Your task to perform on an android device: uninstall "Messenger Lite" Image 0: 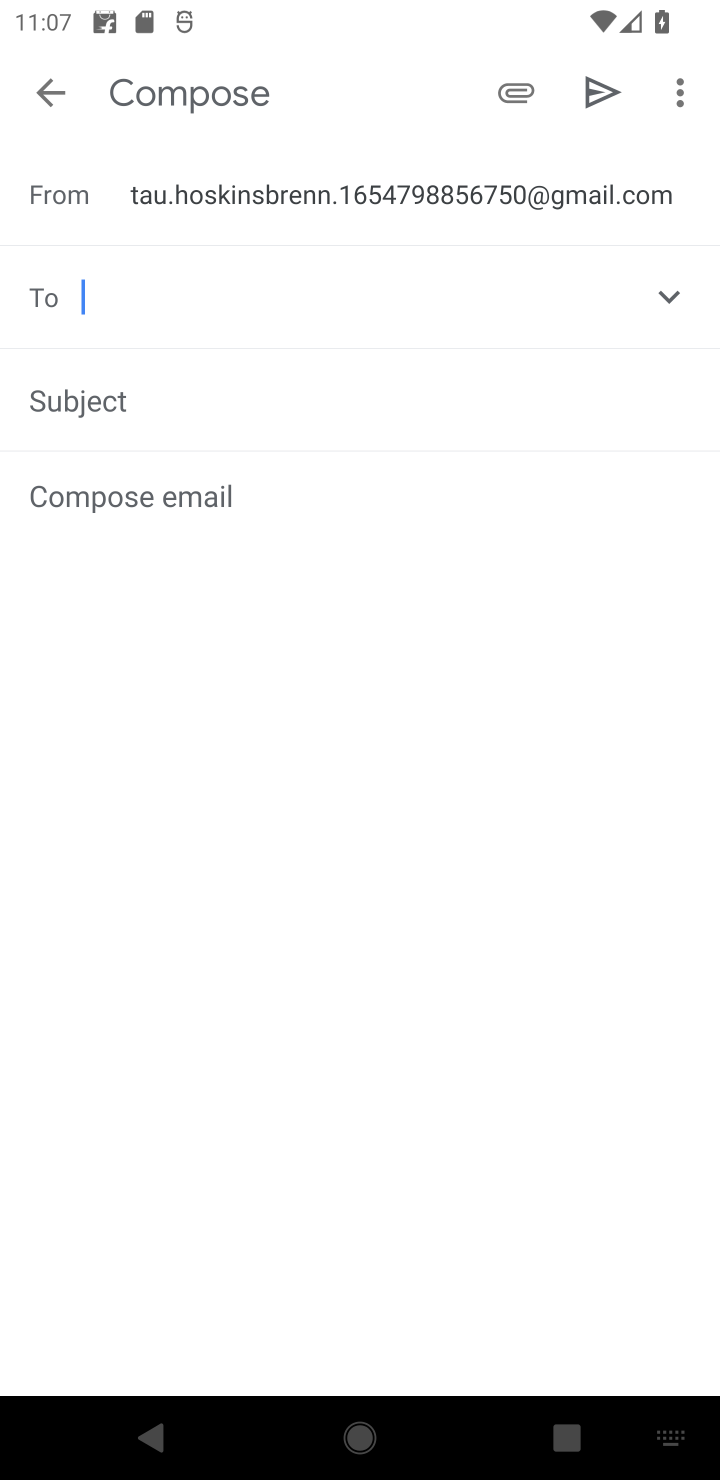
Step 0: press home button
Your task to perform on an android device: uninstall "Messenger Lite" Image 1: 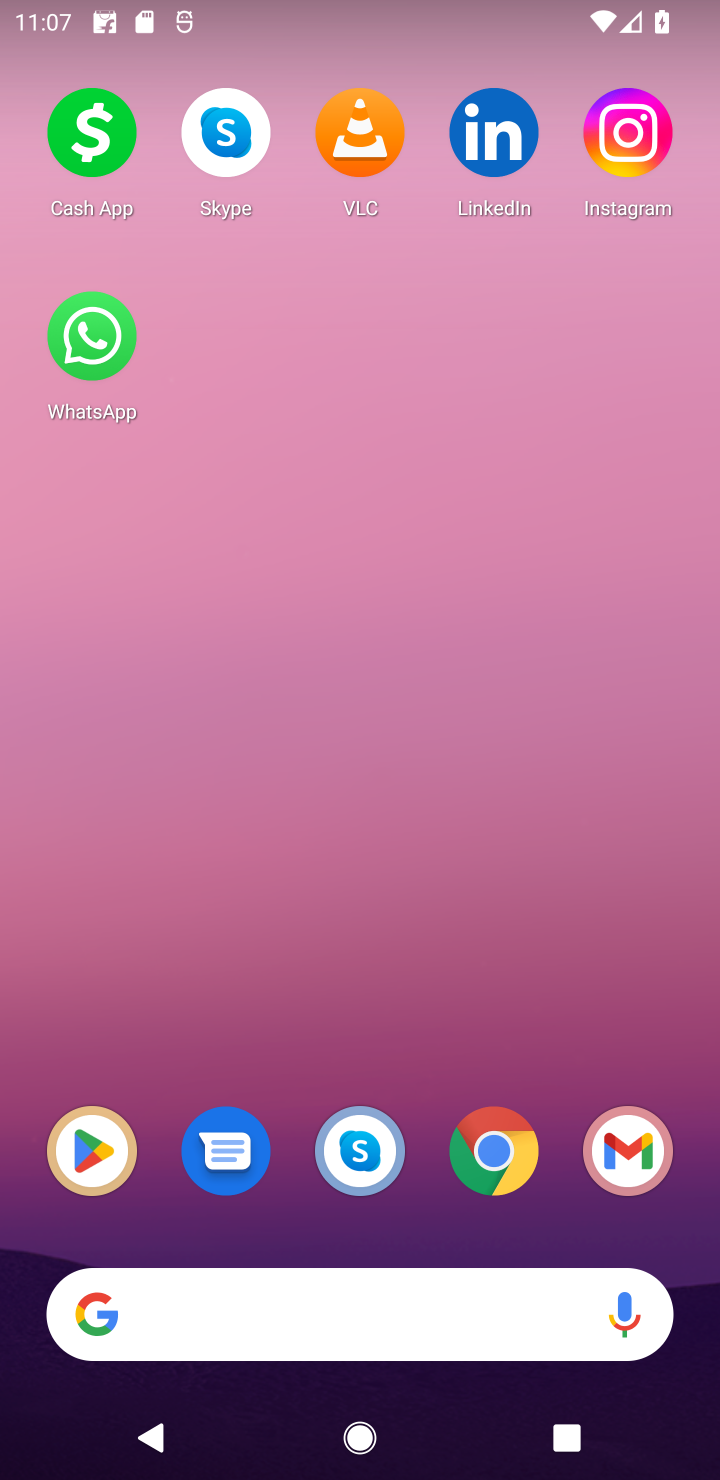
Step 1: click (69, 1143)
Your task to perform on an android device: uninstall "Messenger Lite" Image 2: 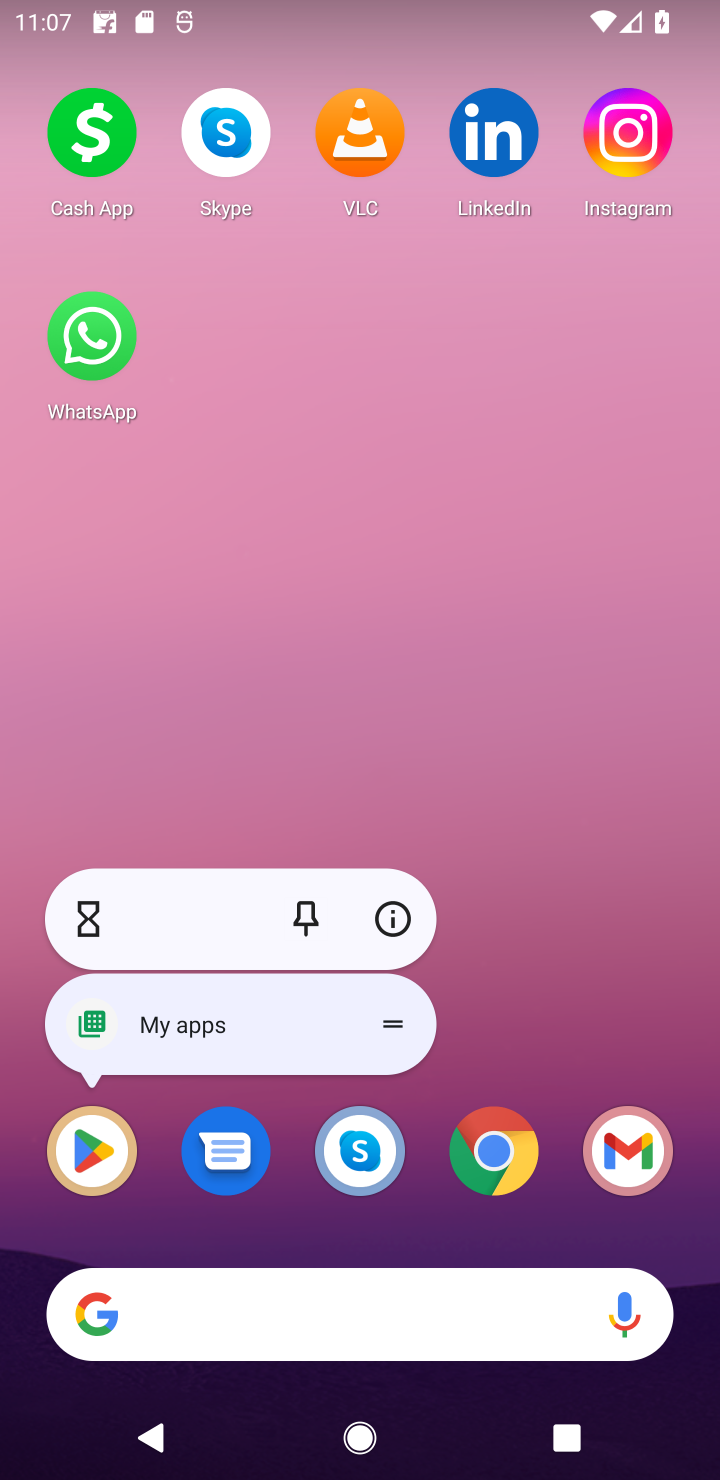
Step 2: click (69, 1143)
Your task to perform on an android device: uninstall "Messenger Lite" Image 3: 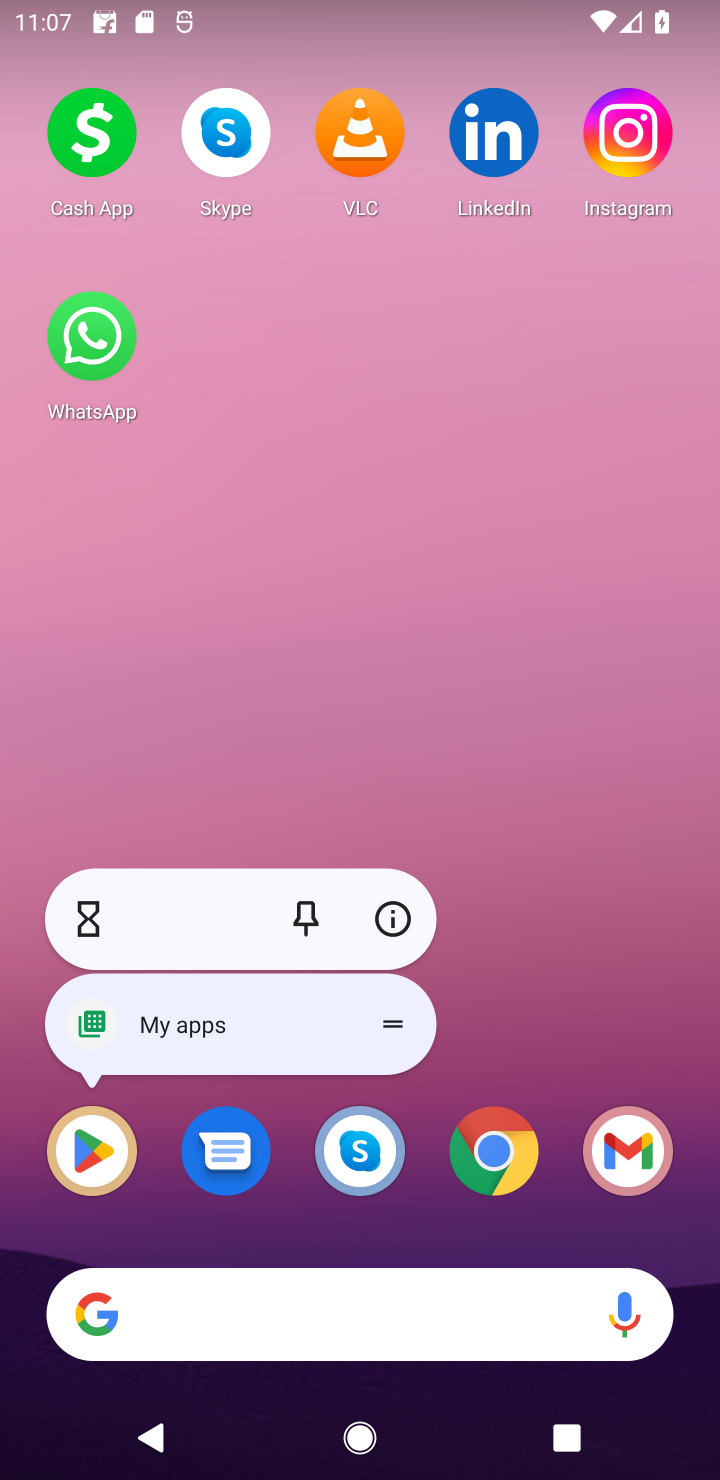
Step 3: click (79, 1172)
Your task to perform on an android device: uninstall "Messenger Lite" Image 4: 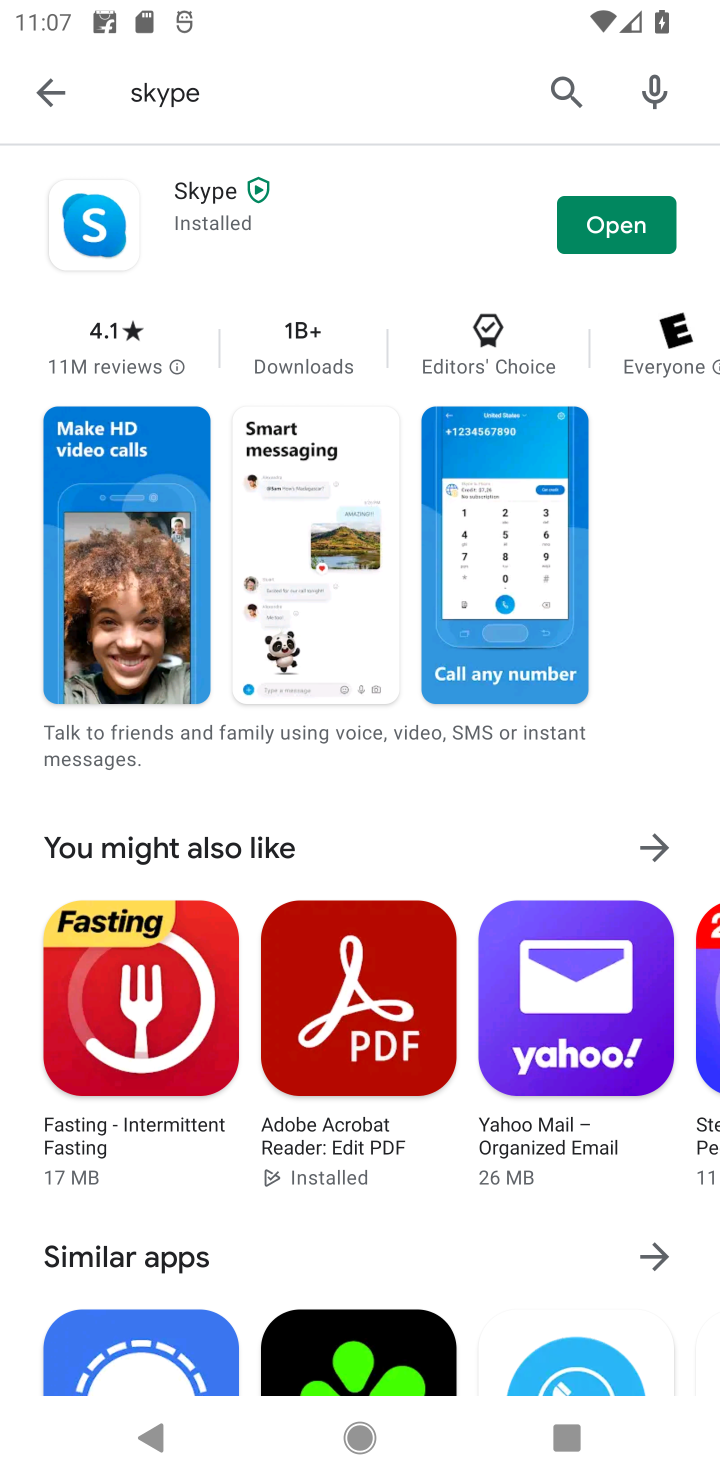
Step 4: click (562, 95)
Your task to perform on an android device: uninstall "Messenger Lite" Image 5: 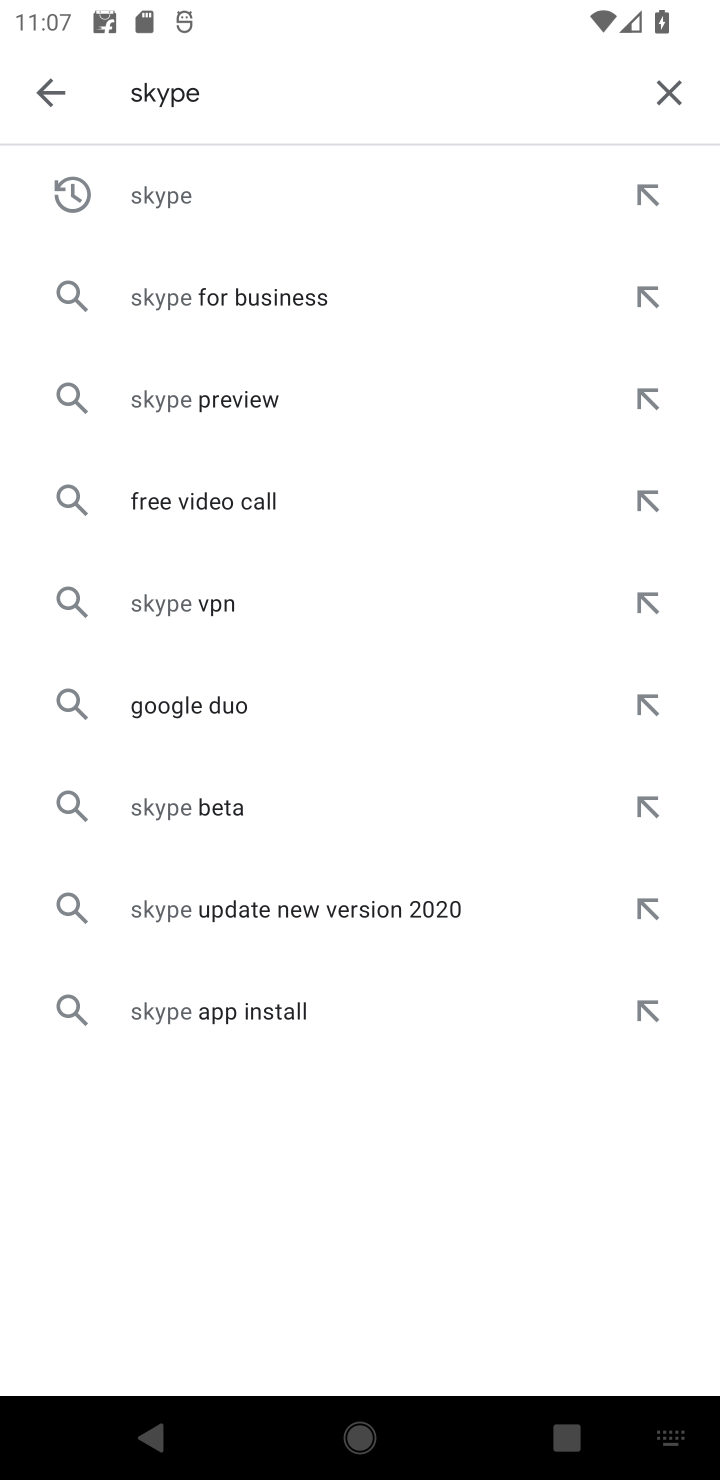
Step 5: click (664, 84)
Your task to perform on an android device: uninstall "Messenger Lite" Image 6: 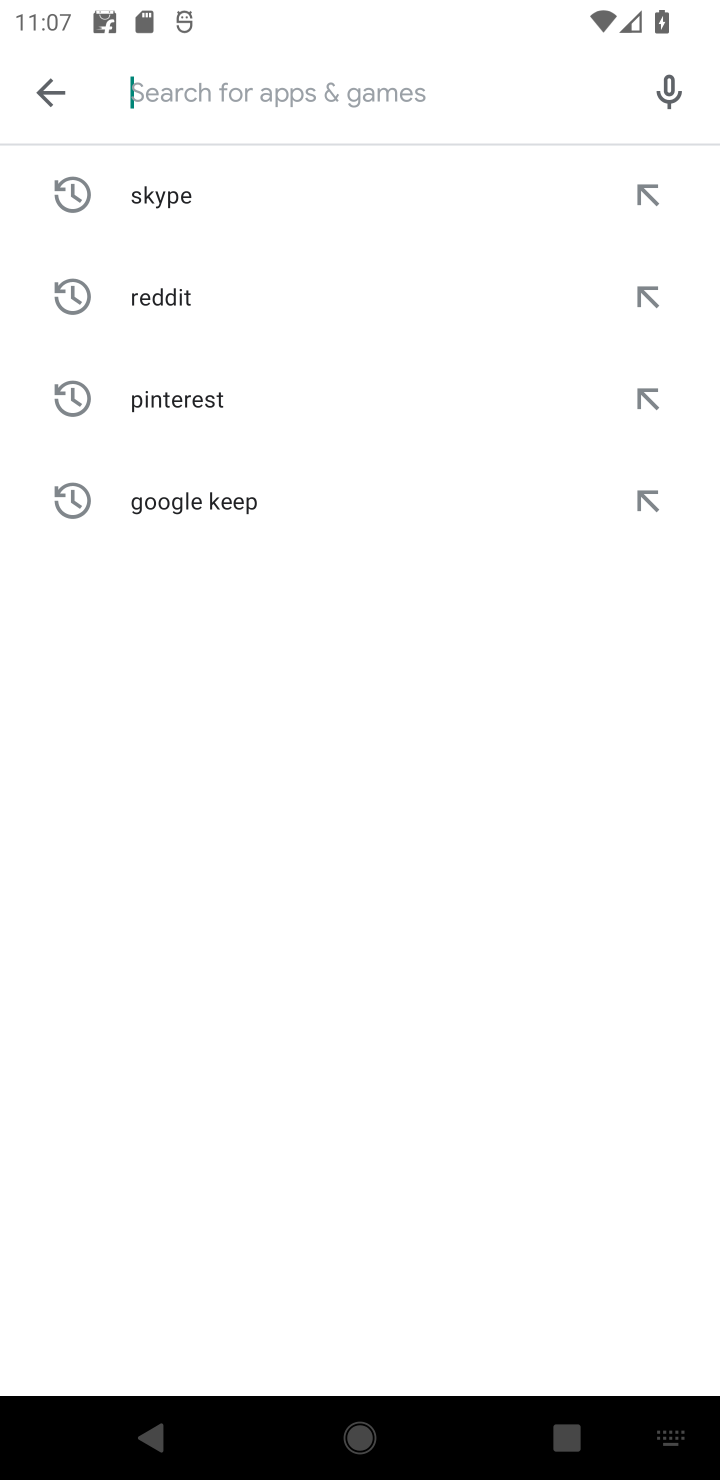
Step 6: type "Messenger Lite"
Your task to perform on an android device: uninstall "Messenger Lite" Image 7: 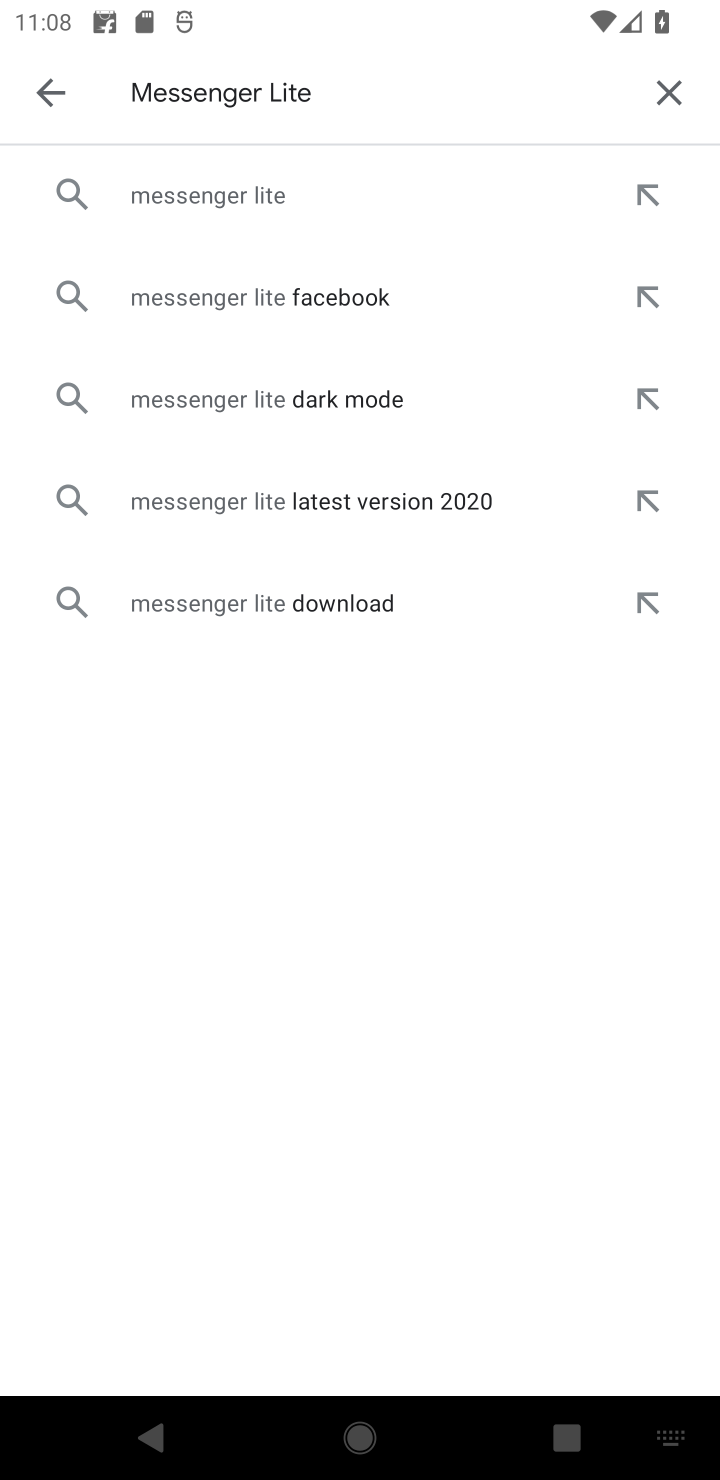
Step 7: click (277, 207)
Your task to perform on an android device: uninstall "Messenger Lite" Image 8: 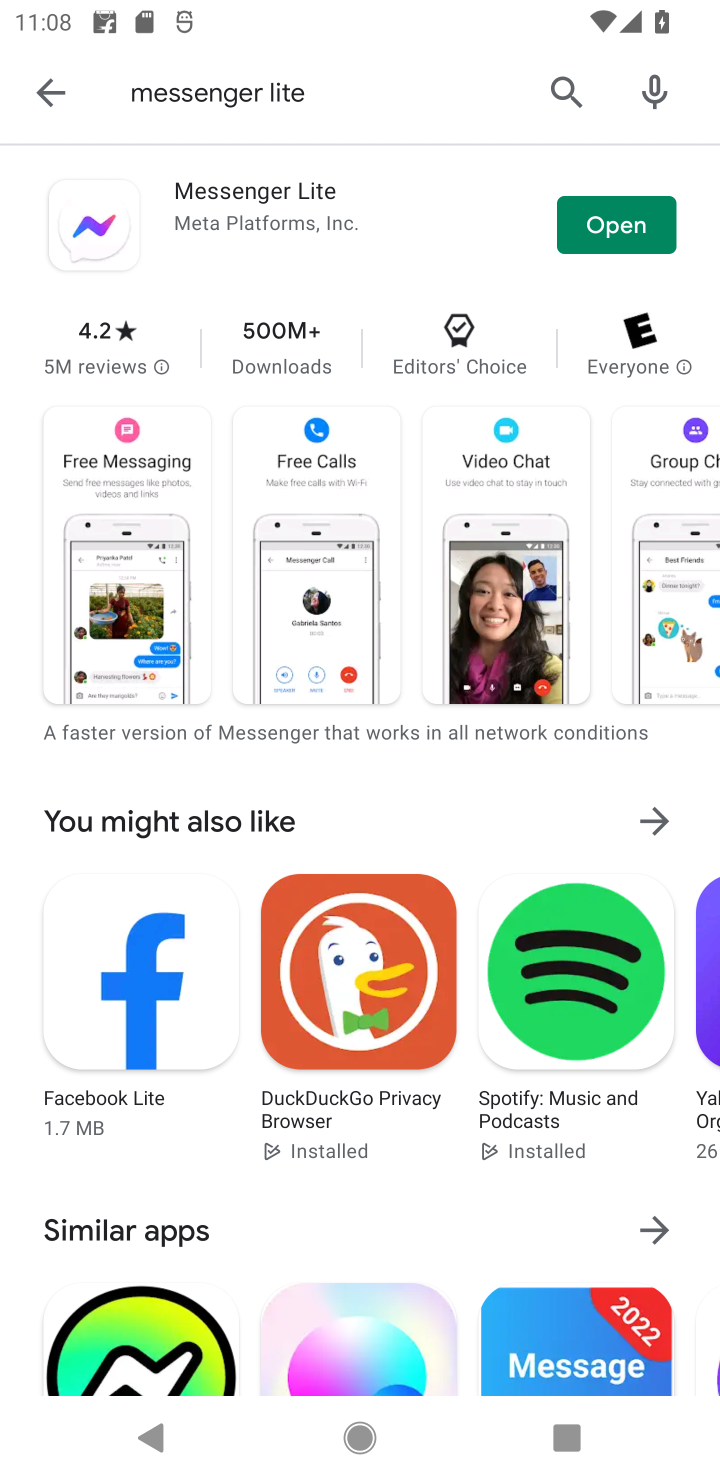
Step 8: click (227, 191)
Your task to perform on an android device: uninstall "Messenger Lite" Image 9: 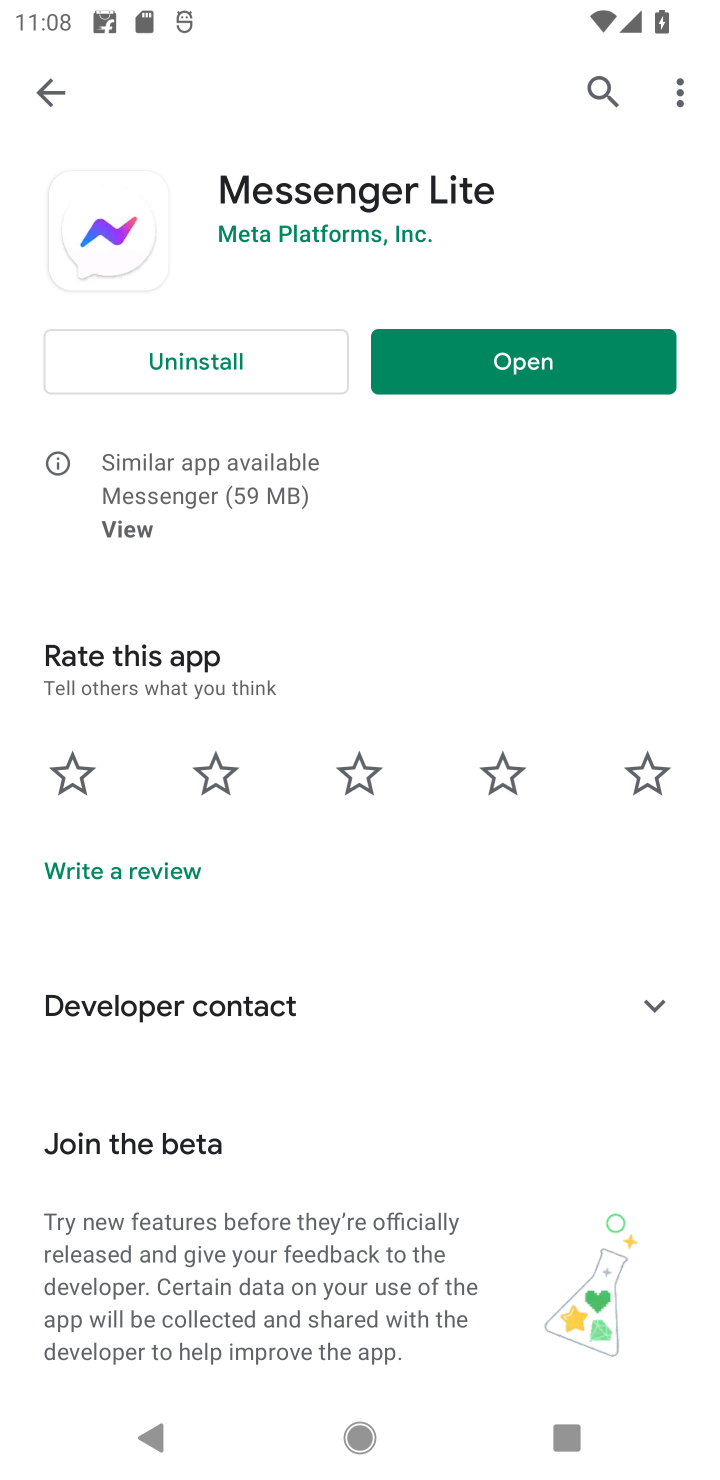
Step 9: click (219, 351)
Your task to perform on an android device: uninstall "Messenger Lite" Image 10: 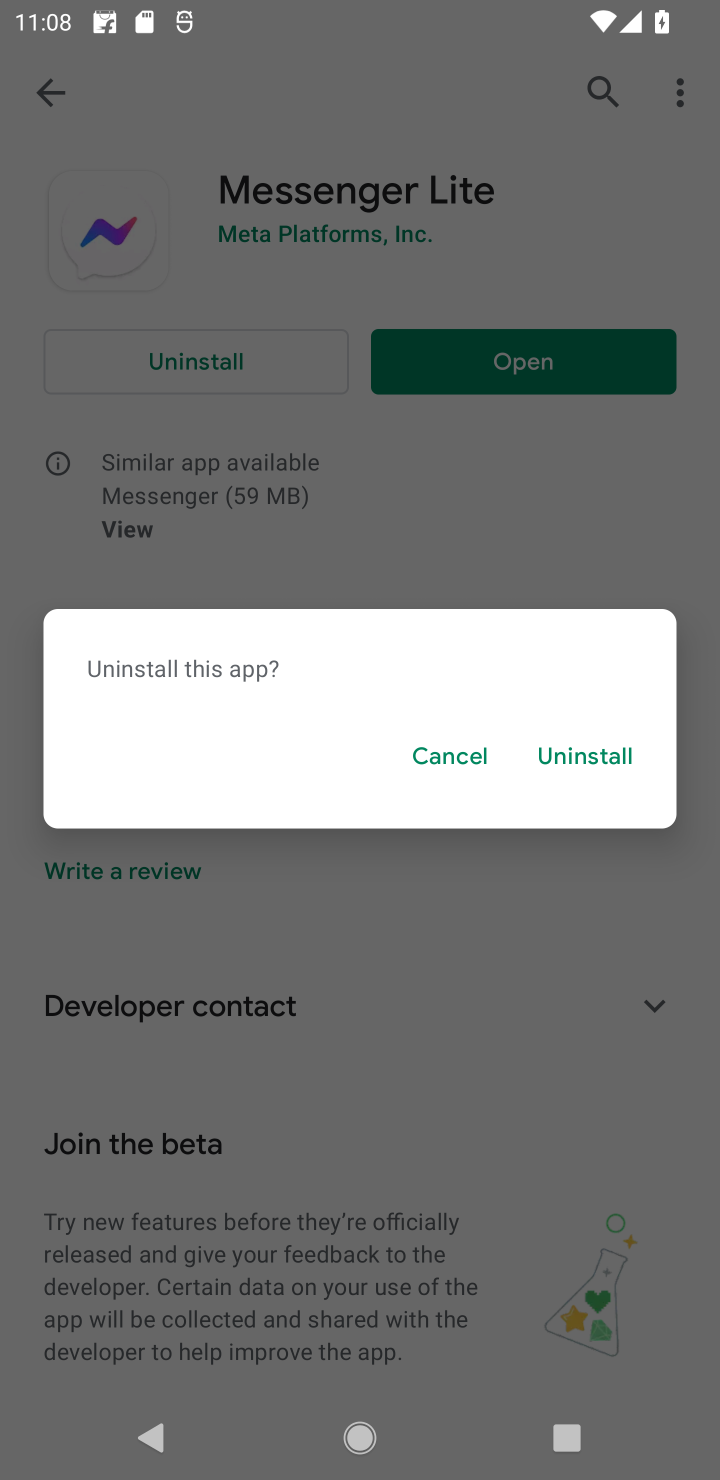
Step 10: click (566, 754)
Your task to perform on an android device: uninstall "Messenger Lite" Image 11: 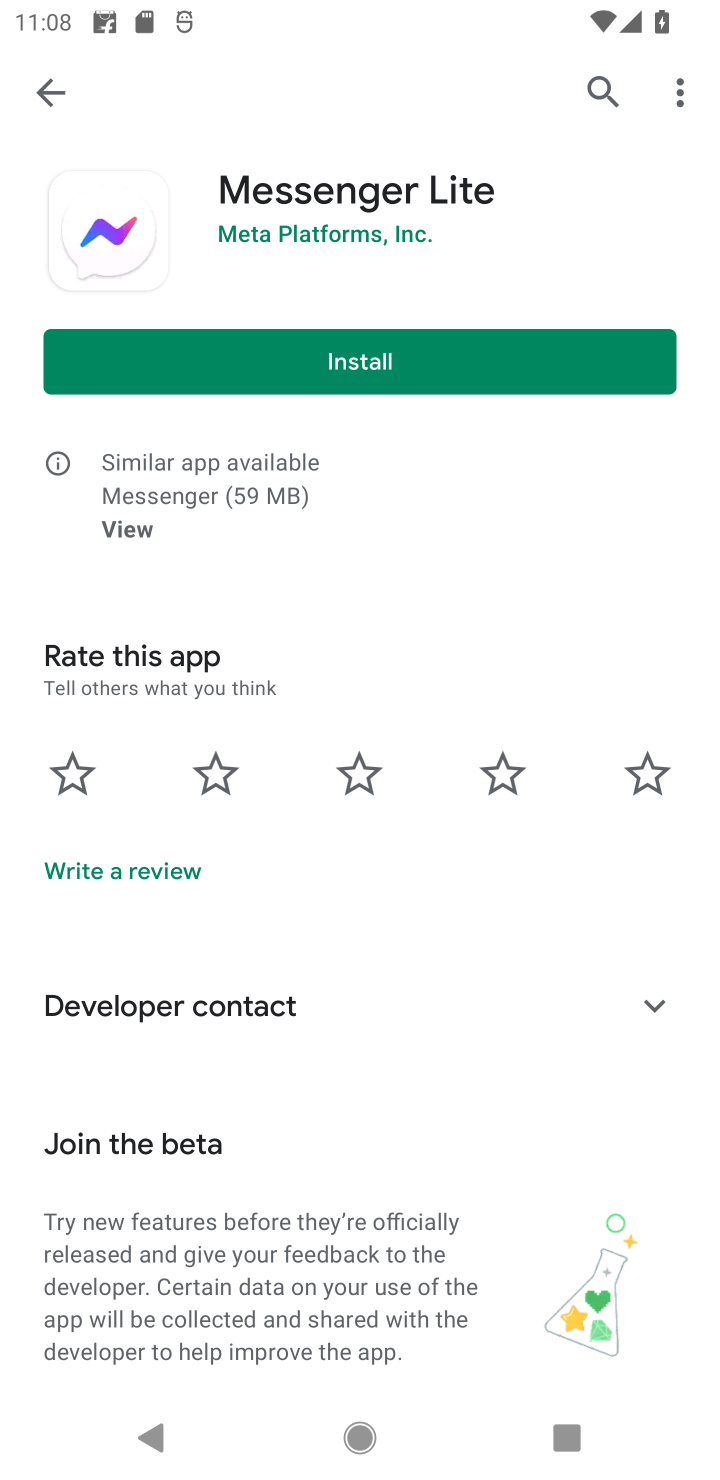
Step 11: task complete